Your task to perform on an android device: toggle airplane mode Image 0: 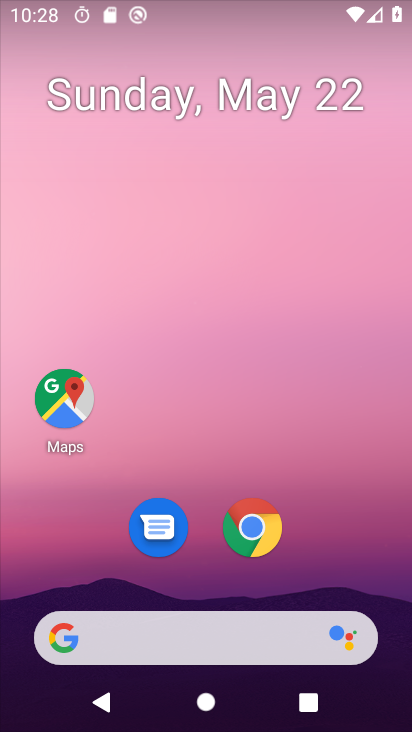
Step 0: drag from (246, 600) to (258, 8)
Your task to perform on an android device: toggle airplane mode Image 1: 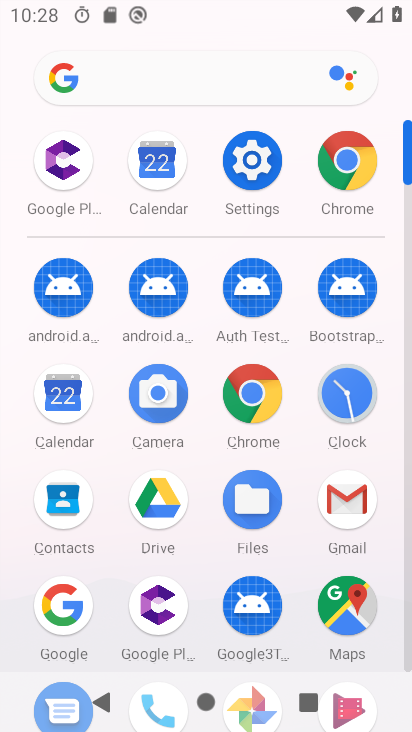
Step 1: click (255, 170)
Your task to perform on an android device: toggle airplane mode Image 2: 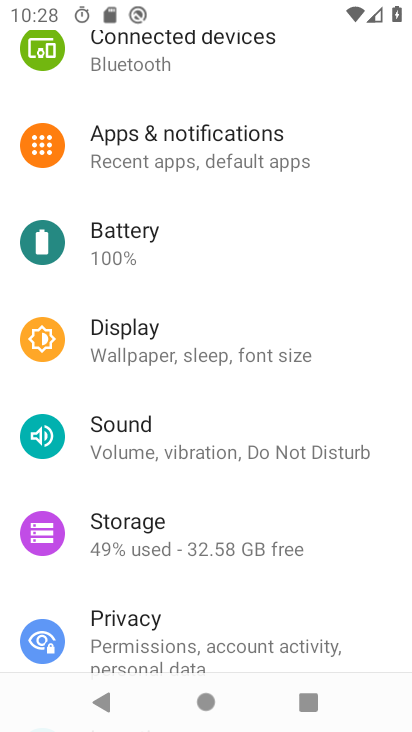
Step 2: drag from (189, 192) to (166, 696)
Your task to perform on an android device: toggle airplane mode Image 3: 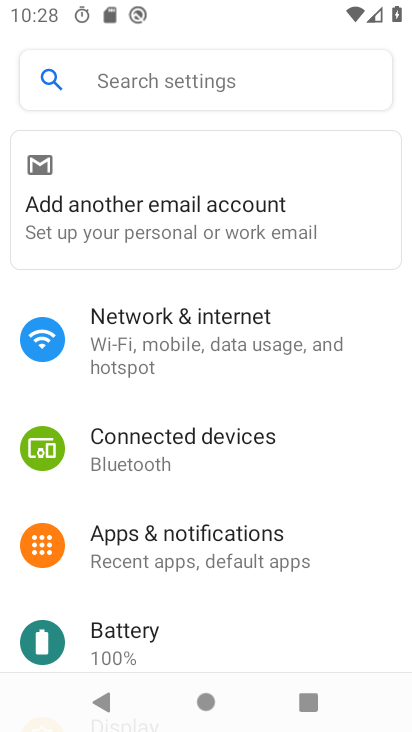
Step 3: click (232, 351)
Your task to perform on an android device: toggle airplane mode Image 4: 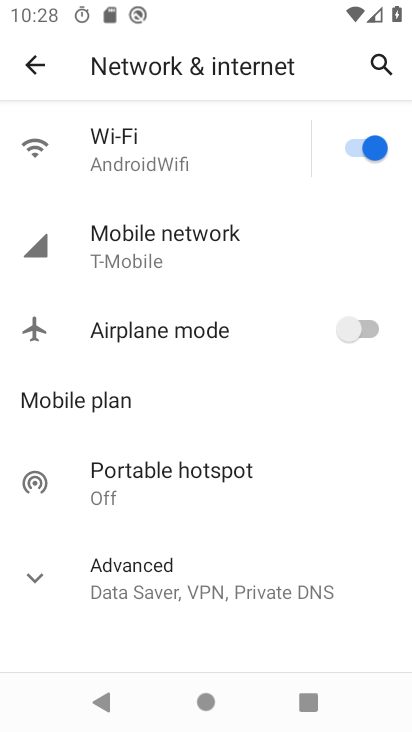
Step 4: click (242, 335)
Your task to perform on an android device: toggle airplane mode Image 5: 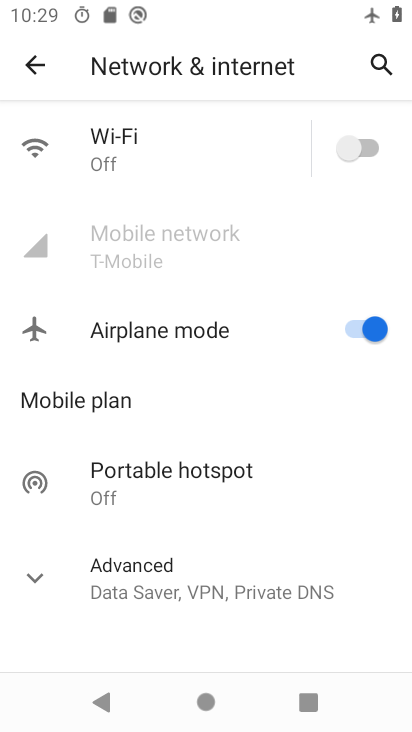
Step 5: task complete